Your task to perform on an android device: change the clock display to analog Image 0: 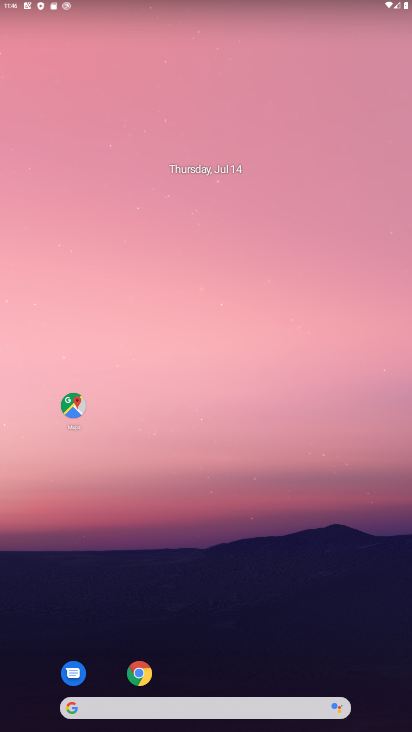
Step 0: drag from (285, 626) to (208, 217)
Your task to perform on an android device: change the clock display to analog Image 1: 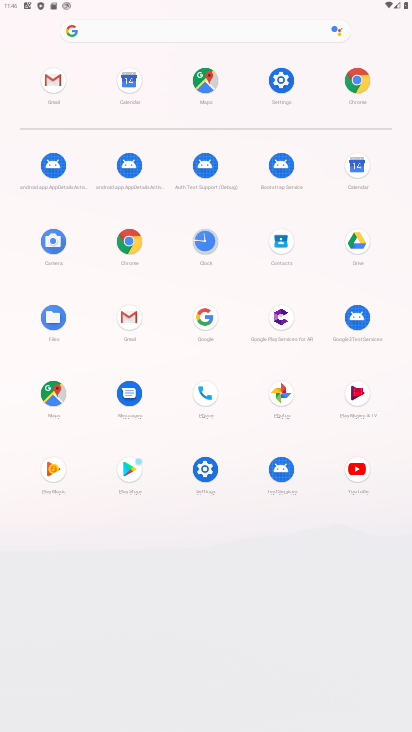
Step 1: click (201, 246)
Your task to perform on an android device: change the clock display to analog Image 2: 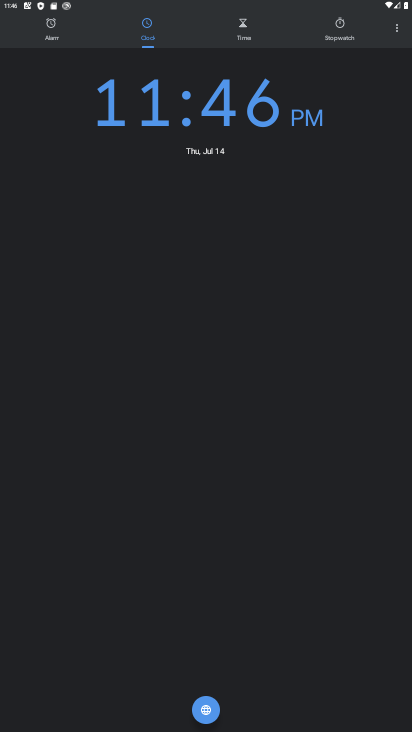
Step 2: click (398, 29)
Your task to perform on an android device: change the clock display to analog Image 3: 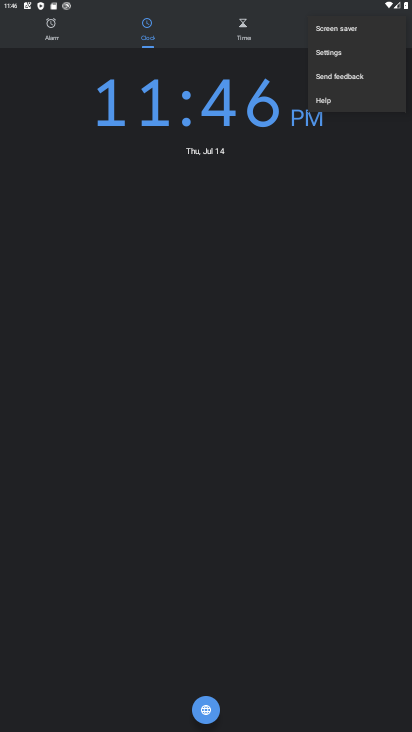
Step 3: click (323, 56)
Your task to perform on an android device: change the clock display to analog Image 4: 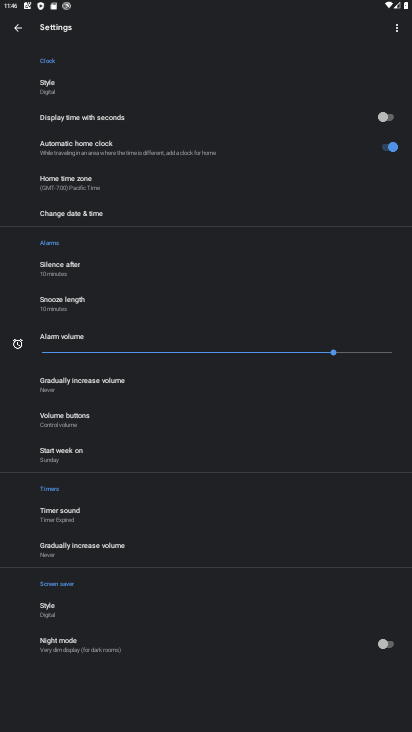
Step 4: click (162, 82)
Your task to perform on an android device: change the clock display to analog Image 5: 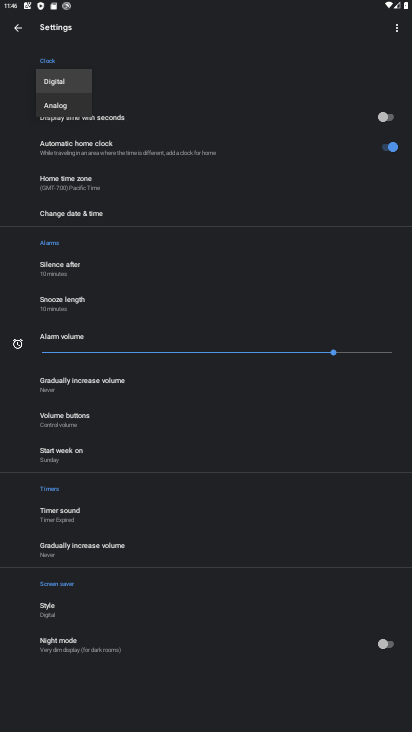
Step 5: click (52, 107)
Your task to perform on an android device: change the clock display to analog Image 6: 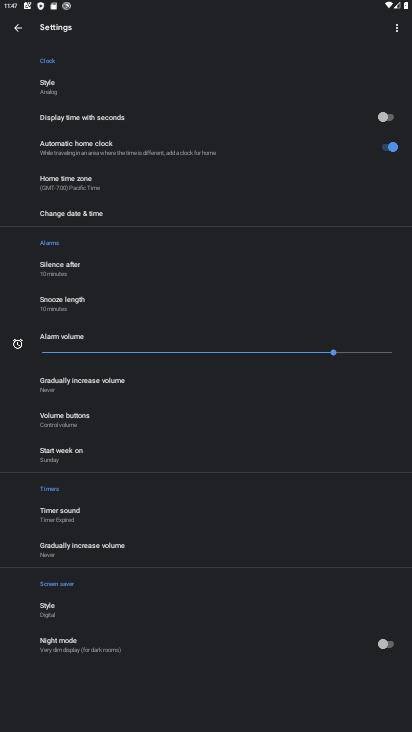
Step 6: task complete